Your task to perform on an android device: What is the recent news? Image 0: 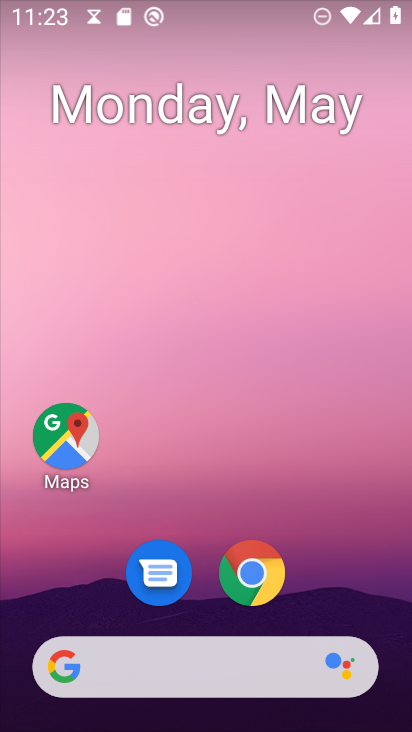
Step 0: drag from (324, 570) to (191, 60)
Your task to perform on an android device: What is the recent news? Image 1: 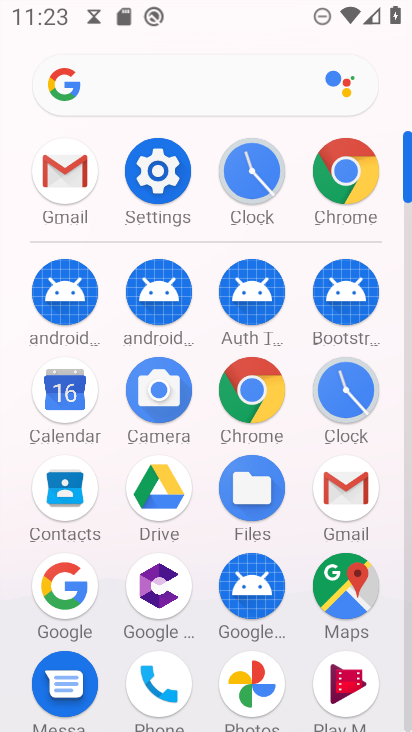
Step 1: click (59, 588)
Your task to perform on an android device: What is the recent news? Image 2: 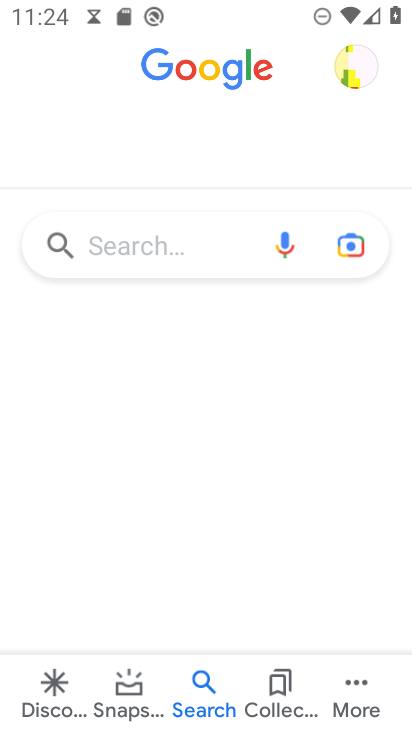
Step 2: click (151, 253)
Your task to perform on an android device: What is the recent news? Image 3: 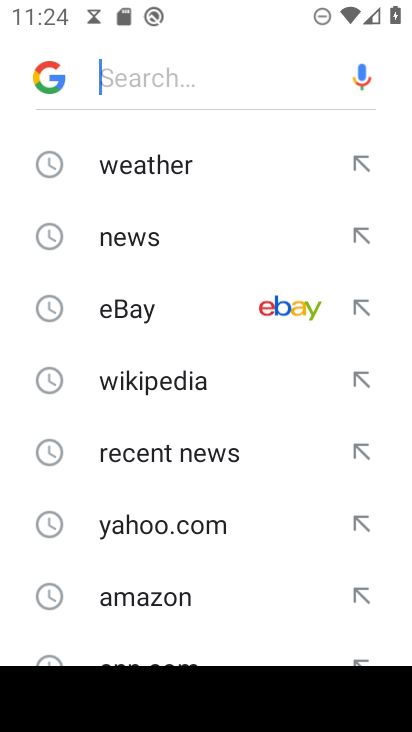
Step 3: click (179, 446)
Your task to perform on an android device: What is the recent news? Image 4: 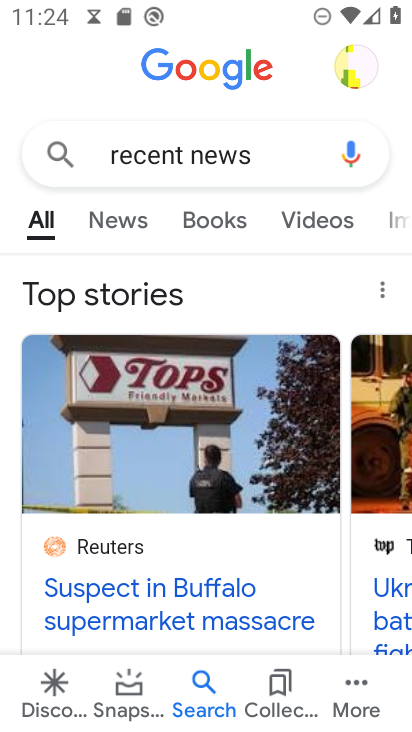
Step 4: task complete